Your task to perform on an android device: Open network settings Image 0: 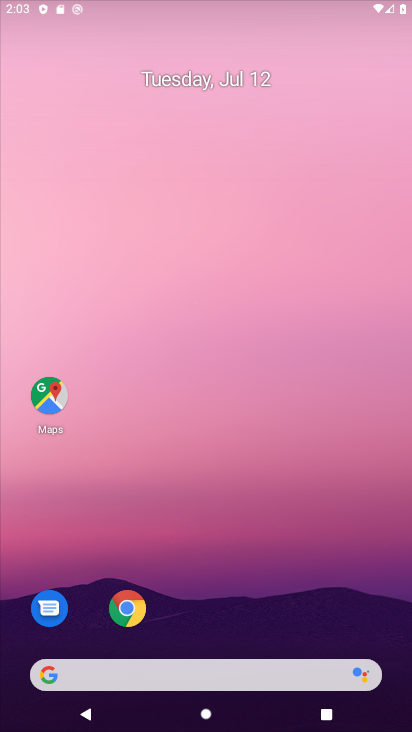
Step 0: drag from (297, 578) to (258, 77)
Your task to perform on an android device: Open network settings Image 1: 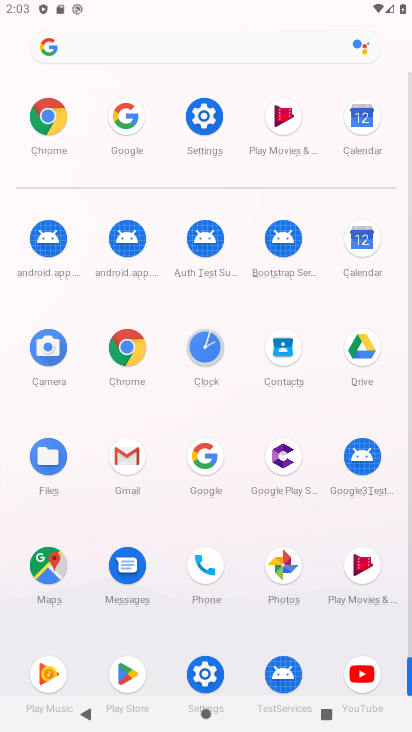
Step 1: click (182, 113)
Your task to perform on an android device: Open network settings Image 2: 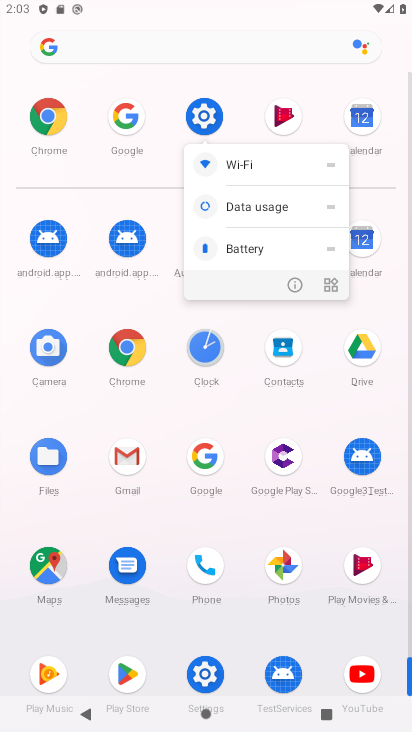
Step 2: click (190, 113)
Your task to perform on an android device: Open network settings Image 3: 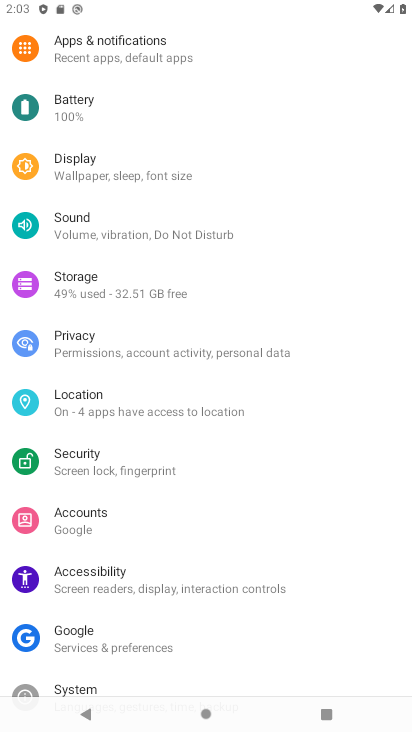
Step 3: drag from (190, 109) to (249, 590)
Your task to perform on an android device: Open network settings Image 4: 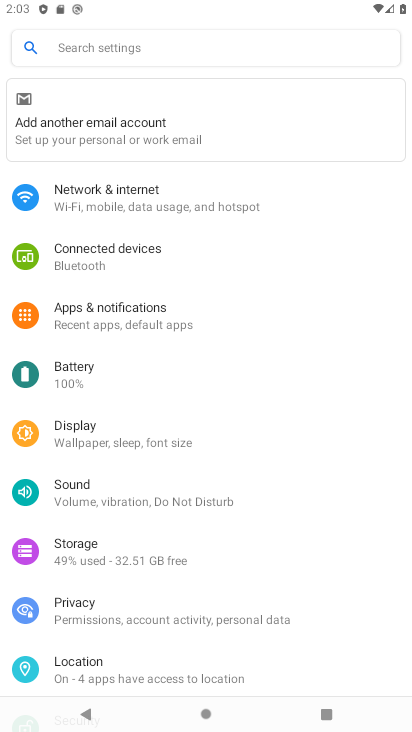
Step 4: click (113, 197)
Your task to perform on an android device: Open network settings Image 5: 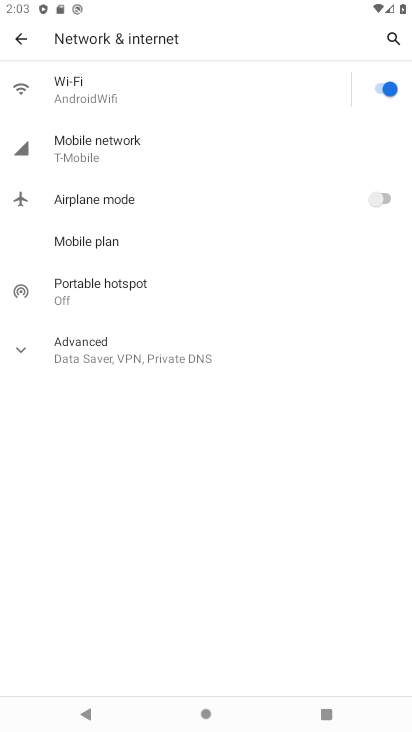
Step 5: task complete